Your task to perform on an android device: change notifications settings Image 0: 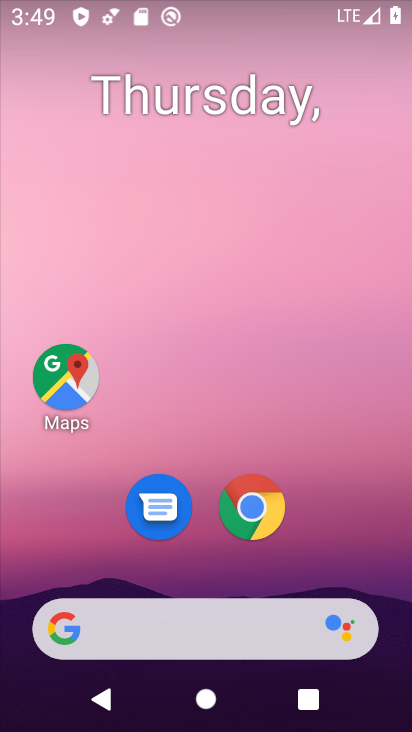
Step 0: drag from (318, 546) to (294, 9)
Your task to perform on an android device: change notifications settings Image 1: 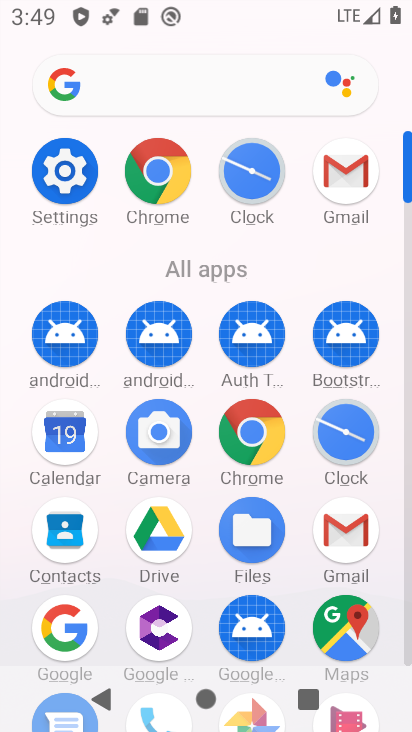
Step 1: click (74, 160)
Your task to perform on an android device: change notifications settings Image 2: 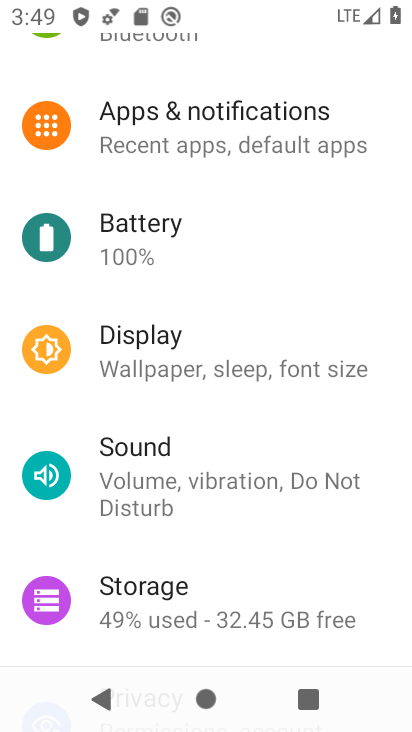
Step 2: click (241, 145)
Your task to perform on an android device: change notifications settings Image 3: 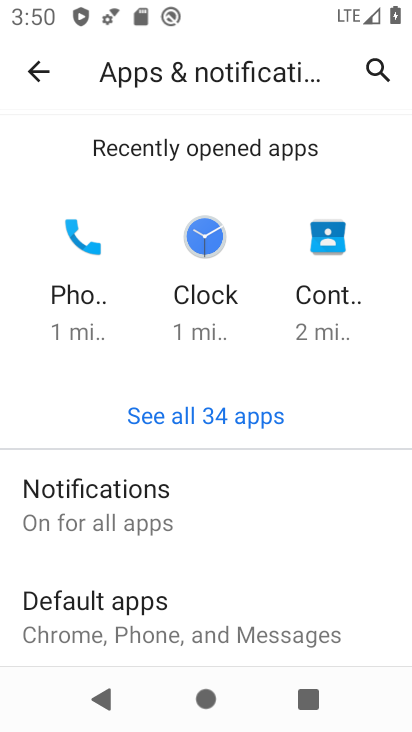
Step 3: click (114, 504)
Your task to perform on an android device: change notifications settings Image 4: 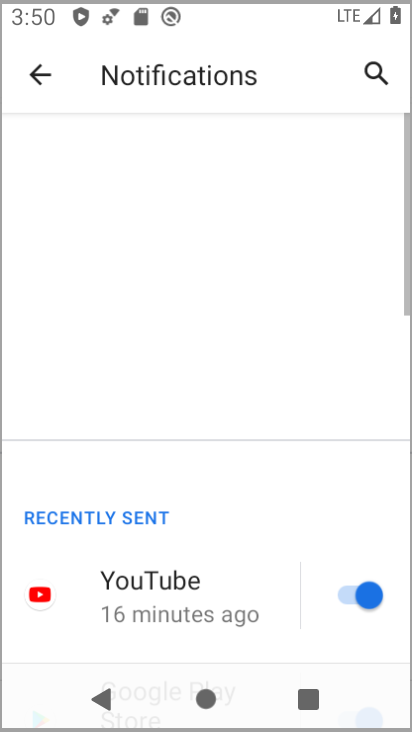
Step 4: drag from (233, 618) to (285, 157)
Your task to perform on an android device: change notifications settings Image 5: 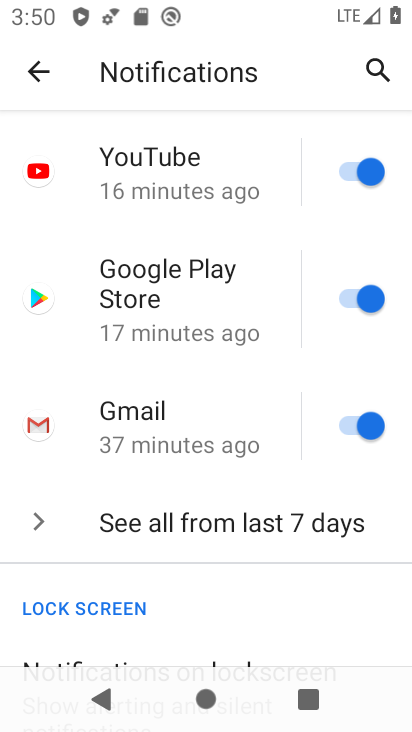
Step 5: drag from (269, 583) to (250, 269)
Your task to perform on an android device: change notifications settings Image 6: 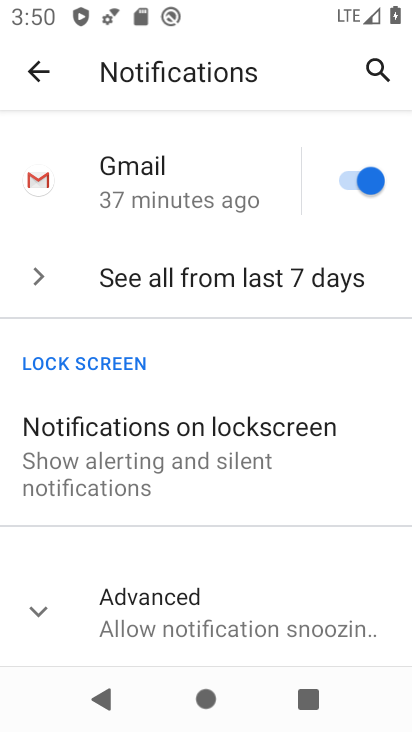
Step 6: click (124, 619)
Your task to perform on an android device: change notifications settings Image 7: 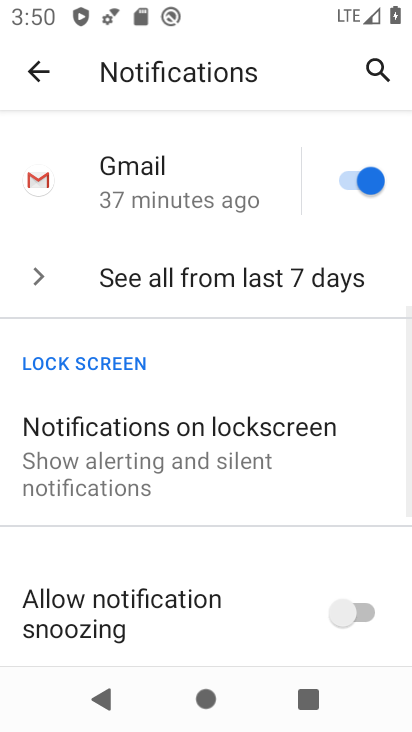
Step 7: drag from (192, 644) to (221, 394)
Your task to perform on an android device: change notifications settings Image 8: 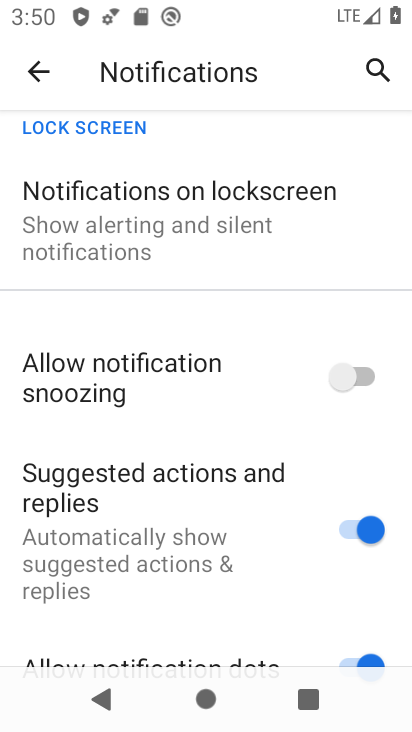
Step 8: click (245, 516)
Your task to perform on an android device: change notifications settings Image 9: 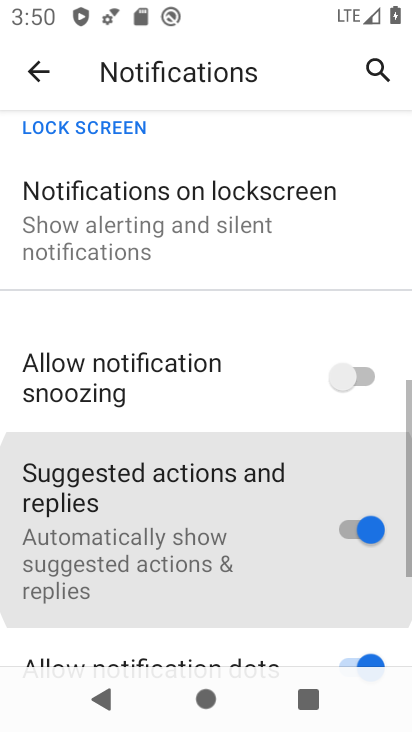
Step 9: click (317, 351)
Your task to perform on an android device: change notifications settings Image 10: 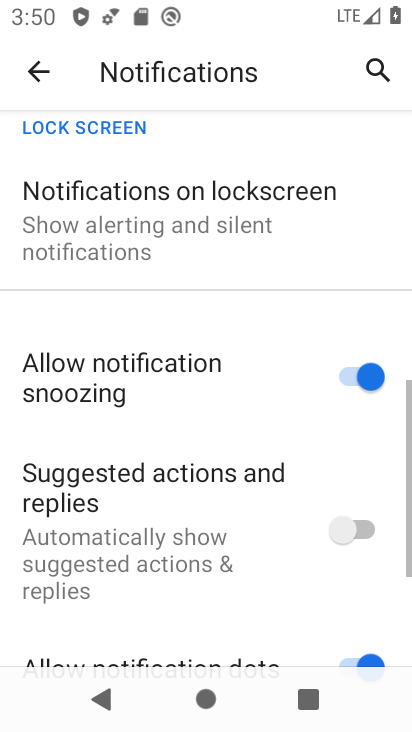
Step 10: click (366, 633)
Your task to perform on an android device: change notifications settings Image 11: 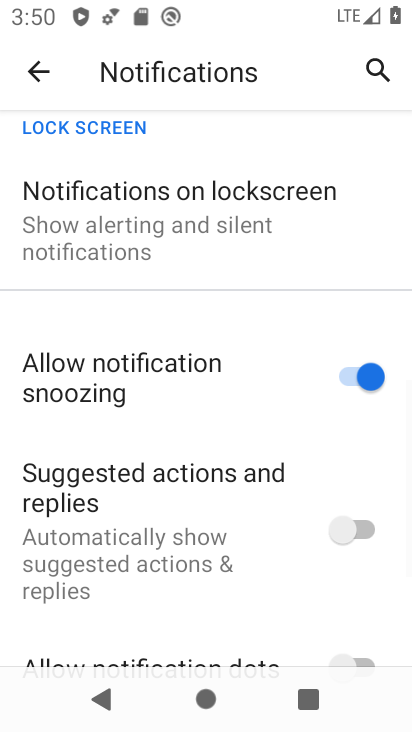
Step 11: task complete